Your task to perform on an android device: Open calendar and show me the first week of next month Image 0: 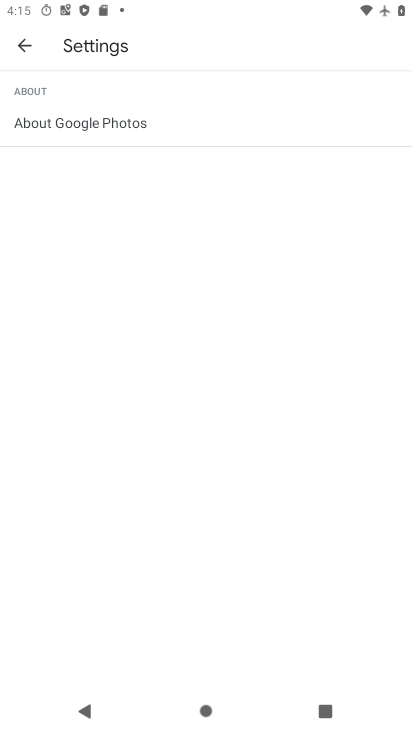
Step 0: press home button
Your task to perform on an android device: Open calendar and show me the first week of next month Image 1: 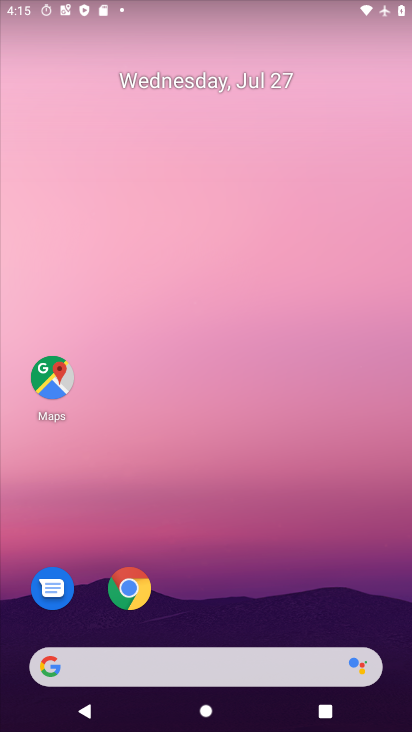
Step 1: drag from (252, 569) to (203, 97)
Your task to perform on an android device: Open calendar and show me the first week of next month Image 2: 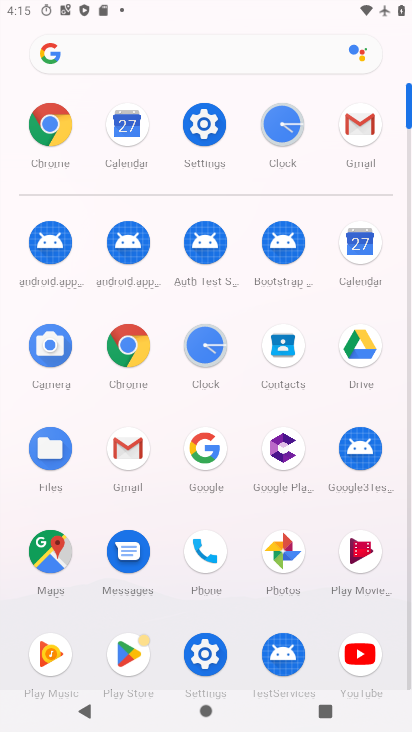
Step 2: click (352, 251)
Your task to perform on an android device: Open calendar and show me the first week of next month Image 3: 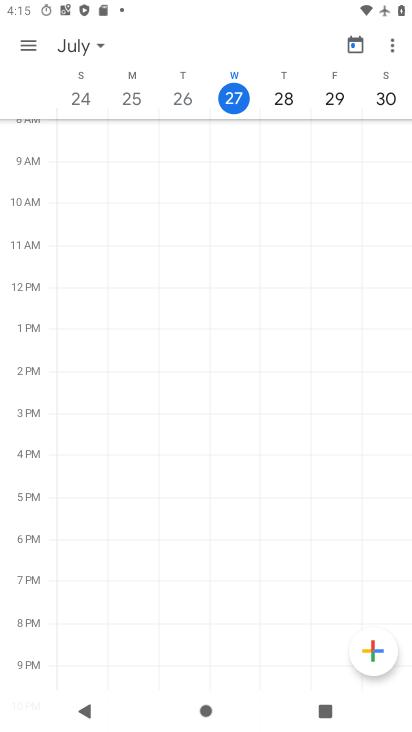
Step 3: task complete